Your task to perform on an android device: Open Yahoo.com Image 0: 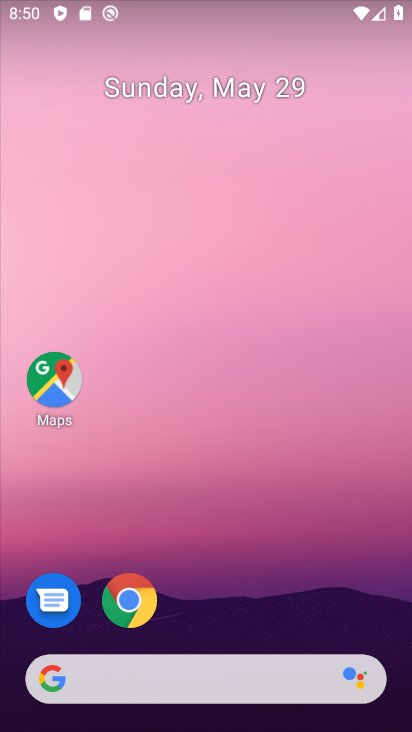
Step 0: click (136, 610)
Your task to perform on an android device: Open Yahoo.com Image 1: 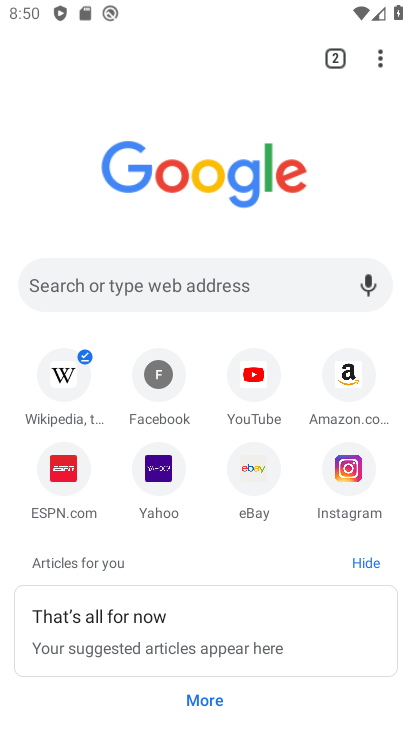
Step 1: click (164, 472)
Your task to perform on an android device: Open Yahoo.com Image 2: 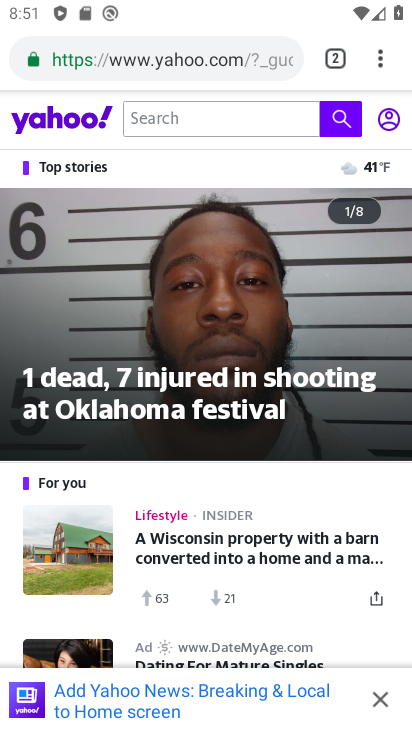
Step 2: task complete